Your task to perform on an android device: Do I have any events this weekend? Image 0: 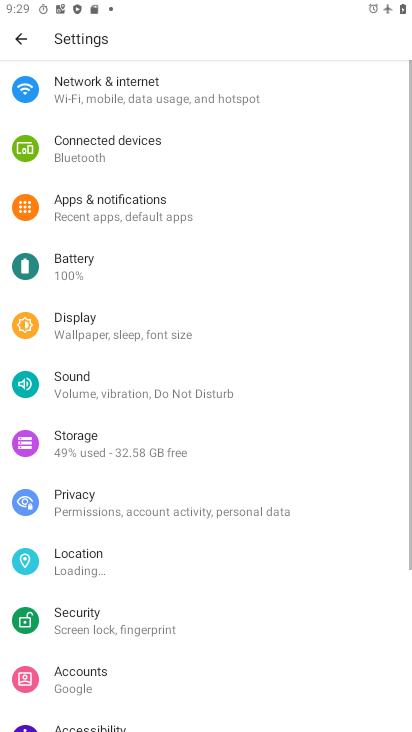
Step 0: press home button
Your task to perform on an android device: Do I have any events this weekend? Image 1: 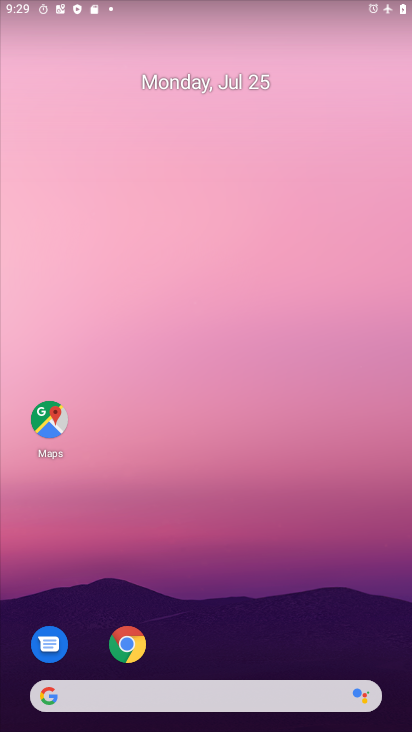
Step 1: drag from (291, 616) to (287, 45)
Your task to perform on an android device: Do I have any events this weekend? Image 2: 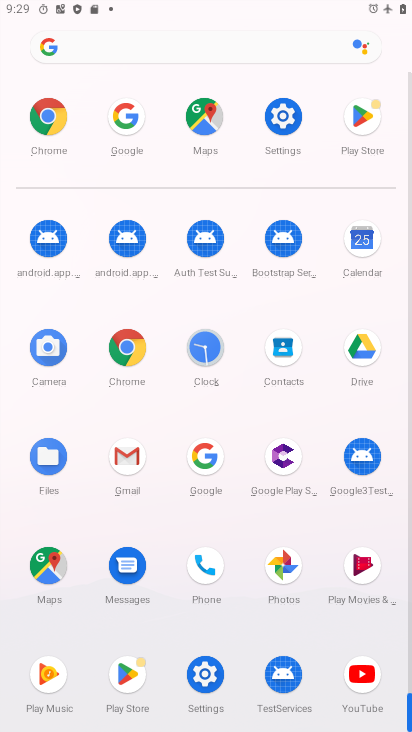
Step 2: click (363, 244)
Your task to perform on an android device: Do I have any events this weekend? Image 3: 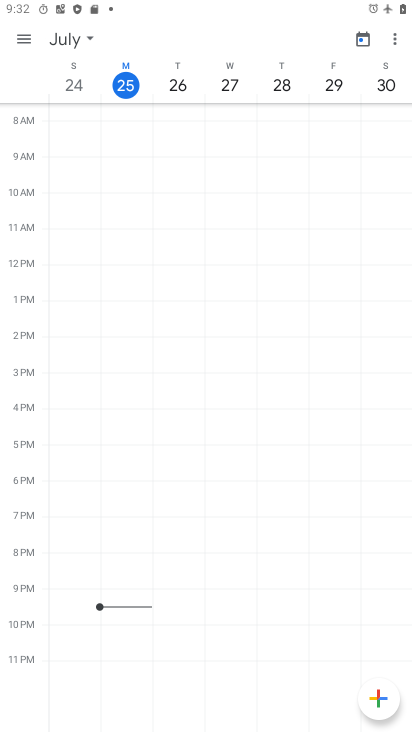
Step 3: task complete